Your task to perform on an android device: Clear the shopping cart on ebay.com. Image 0: 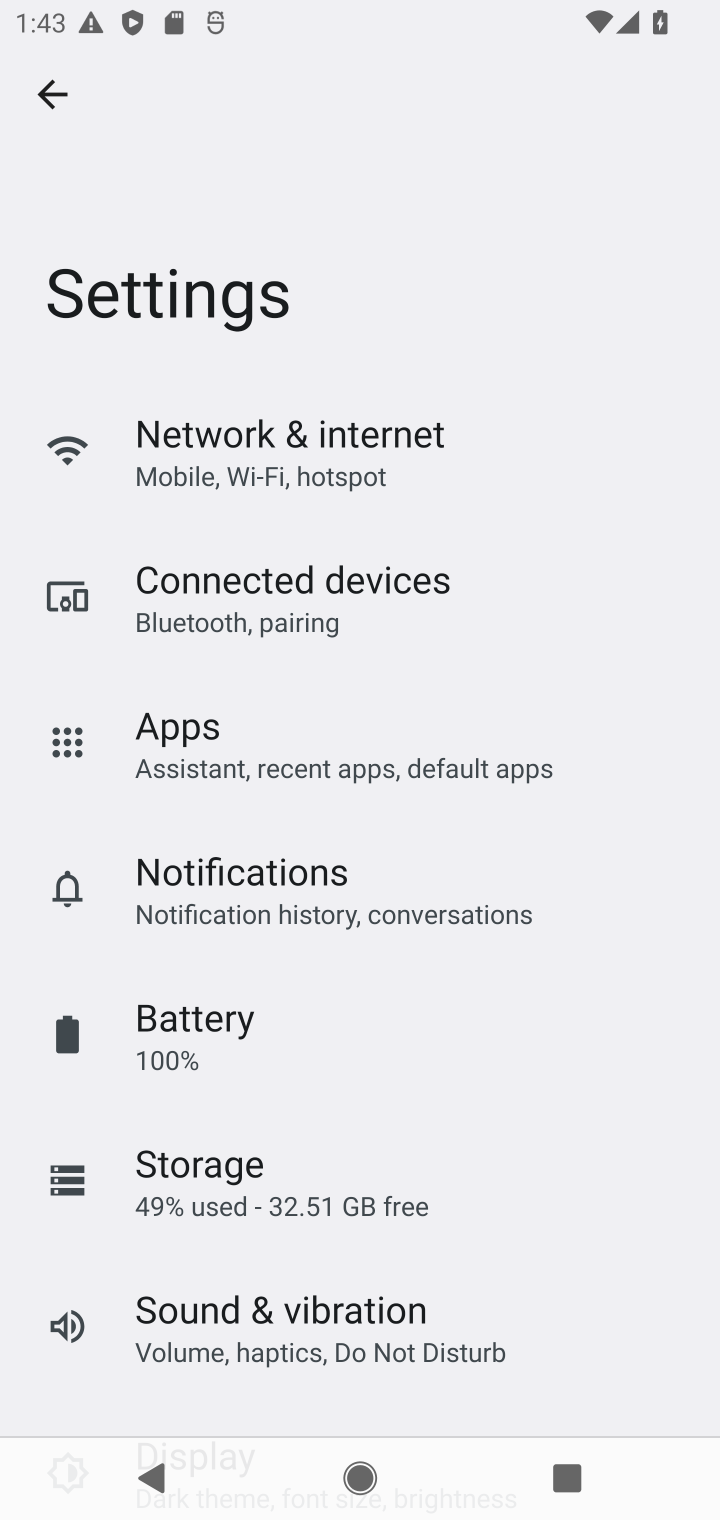
Step 0: press home button
Your task to perform on an android device: Clear the shopping cart on ebay.com. Image 1: 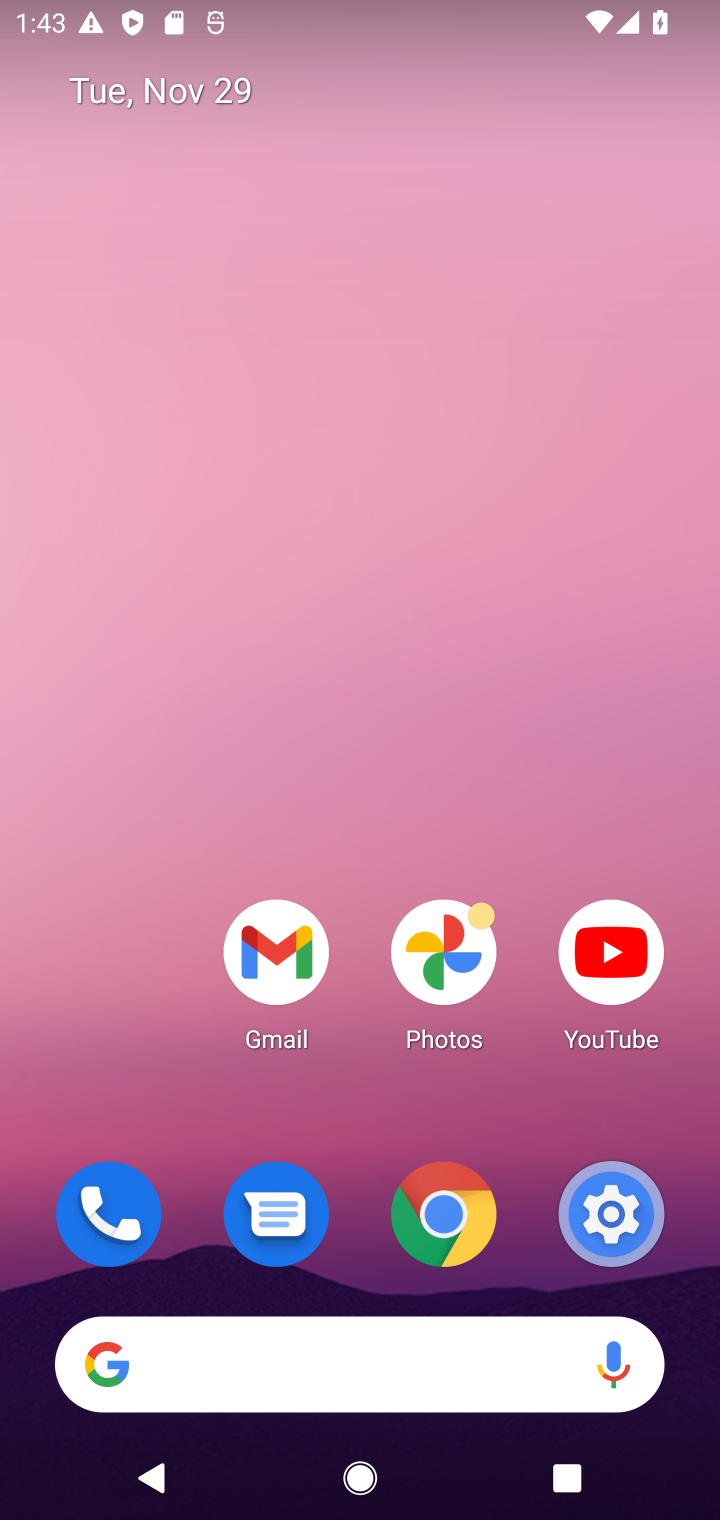
Step 1: click (224, 1401)
Your task to perform on an android device: Clear the shopping cart on ebay.com. Image 2: 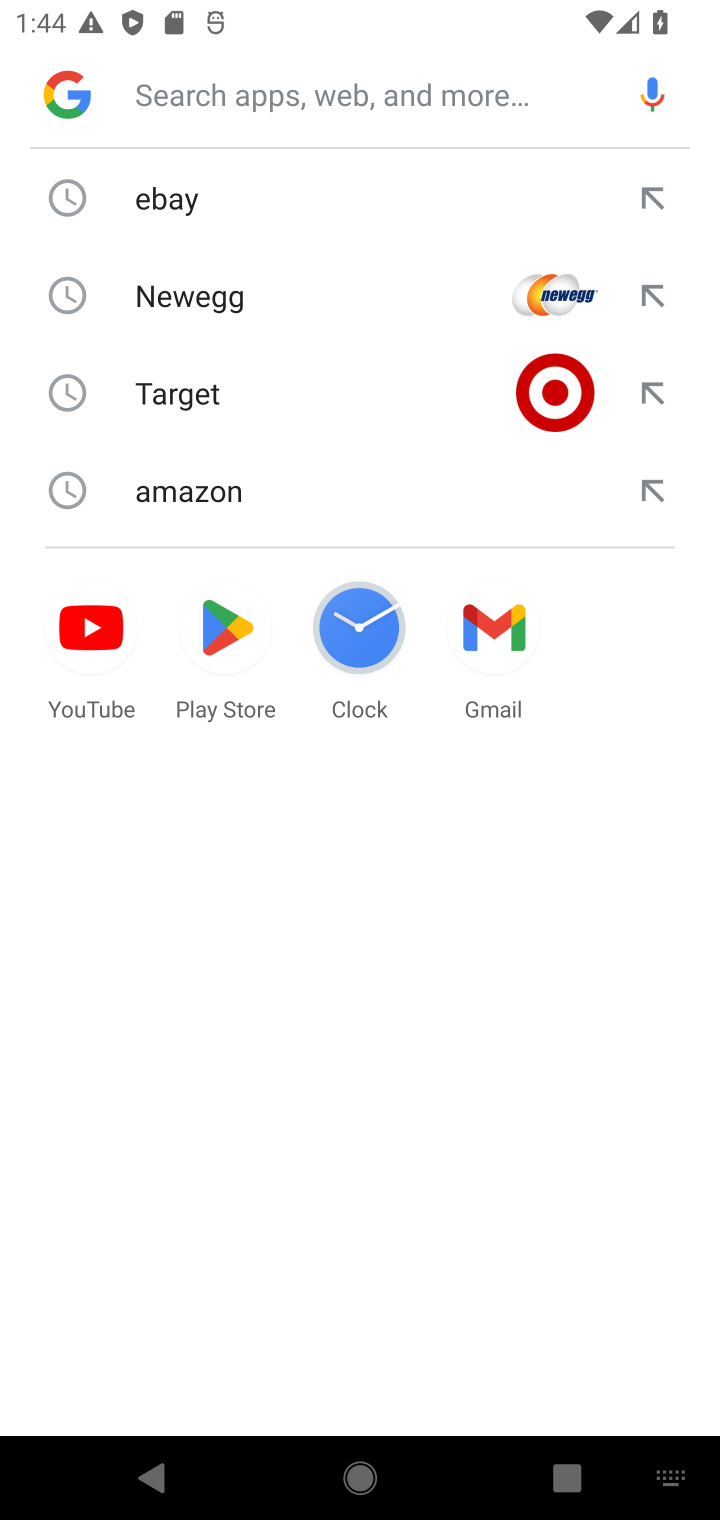
Step 2: click (116, 211)
Your task to perform on an android device: Clear the shopping cart on ebay.com. Image 3: 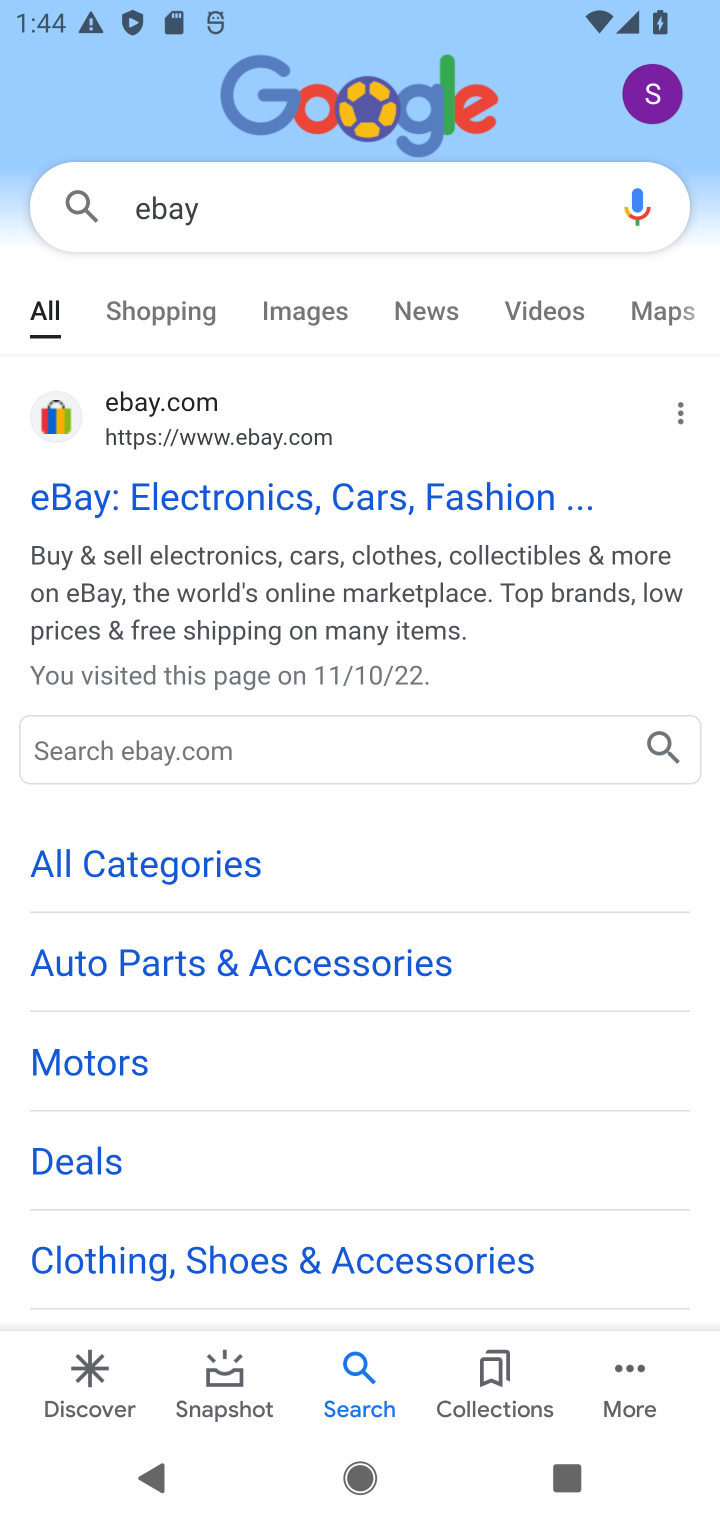
Step 3: click (157, 494)
Your task to perform on an android device: Clear the shopping cart on ebay.com. Image 4: 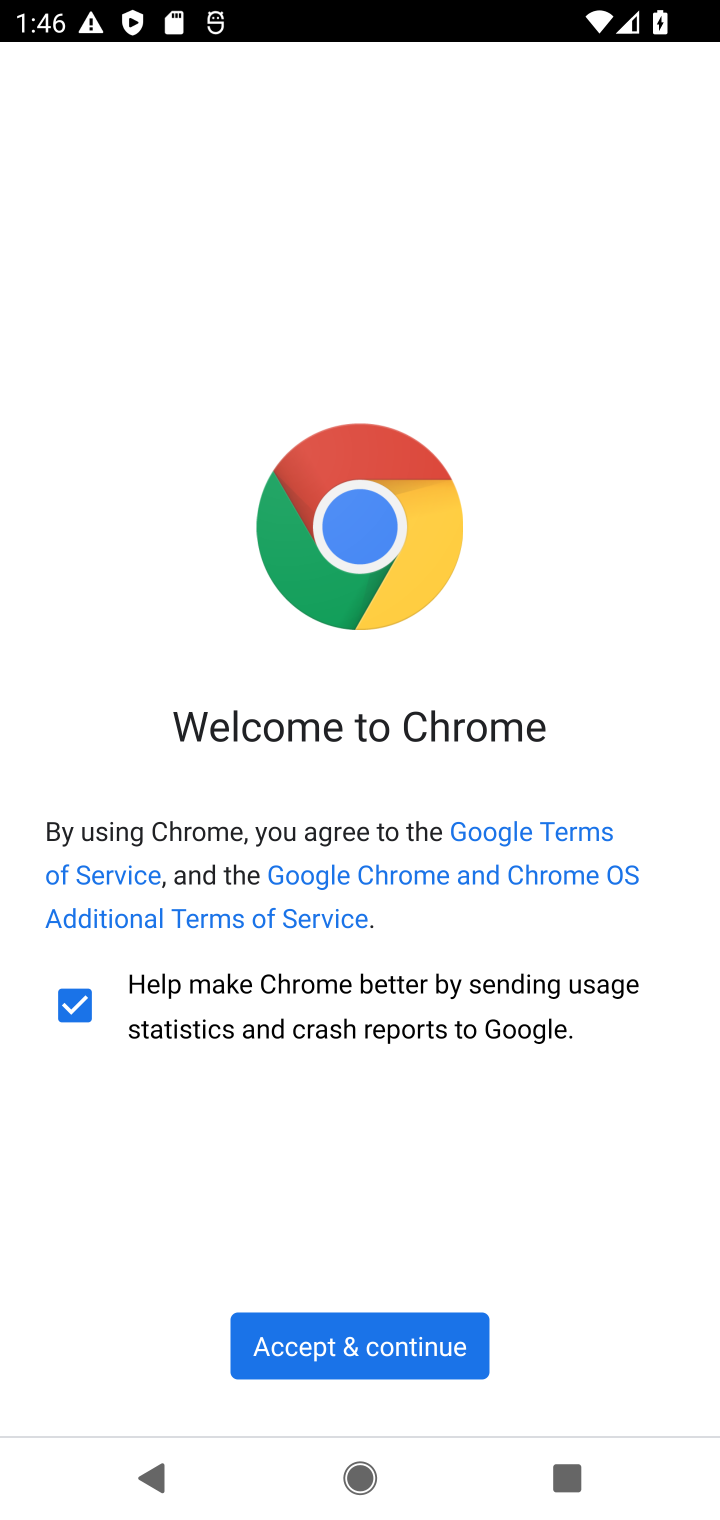
Step 4: task complete